Your task to perform on an android device: clear history in the chrome app Image 0: 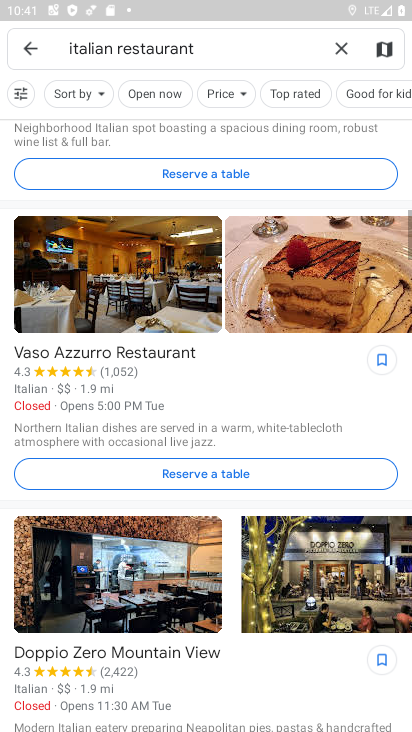
Step 0: press home button
Your task to perform on an android device: clear history in the chrome app Image 1: 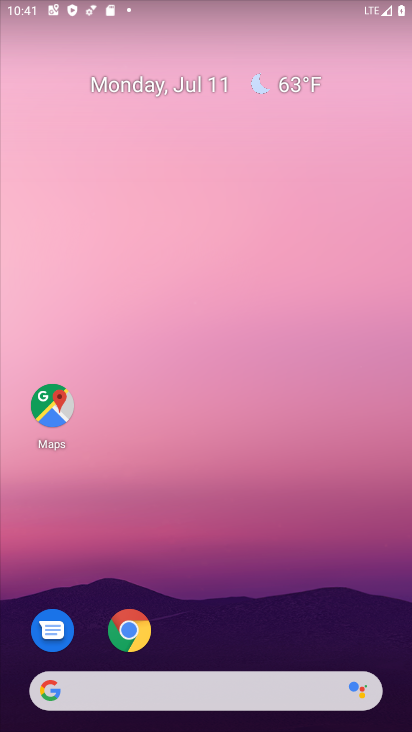
Step 1: click (129, 632)
Your task to perform on an android device: clear history in the chrome app Image 2: 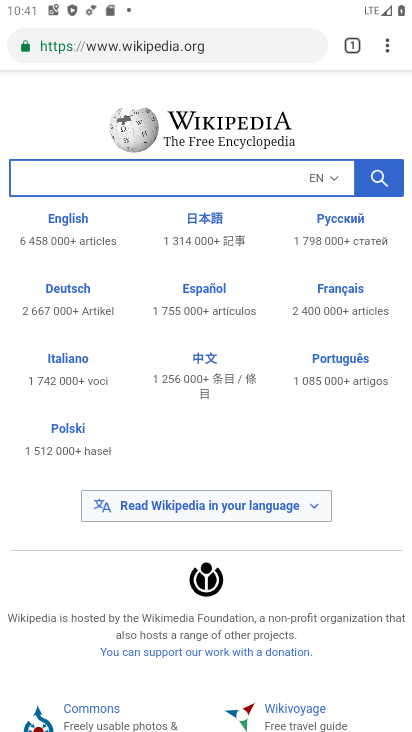
Step 2: click (387, 50)
Your task to perform on an android device: clear history in the chrome app Image 3: 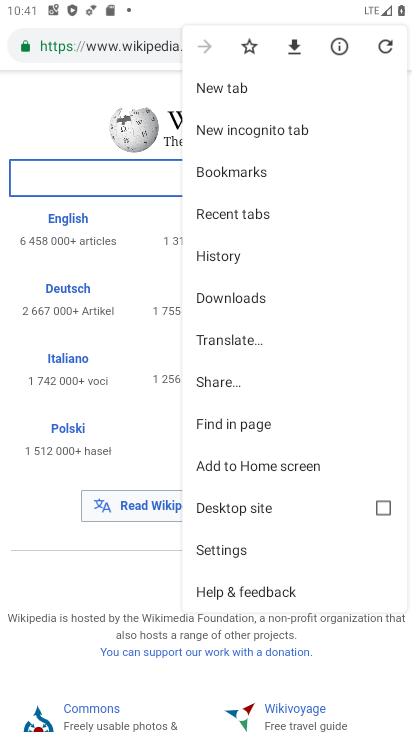
Step 3: click (211, 249)
Your task to perform on an android device: clear history in the chrome app Image 4: 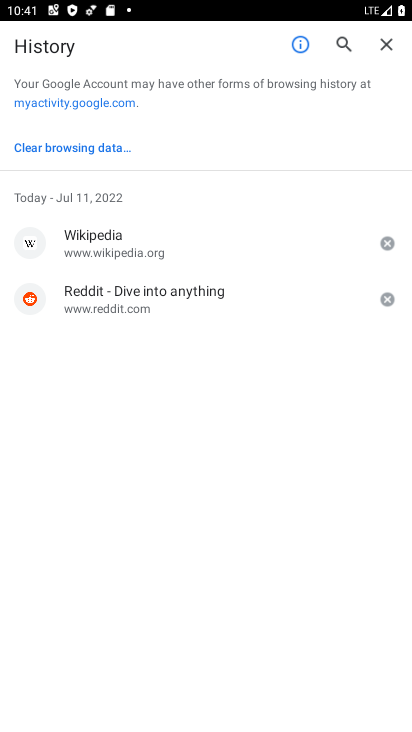
Step 4: click (67, 146)
Your task to perform on an android device: clear history in the chrome app Image 5: 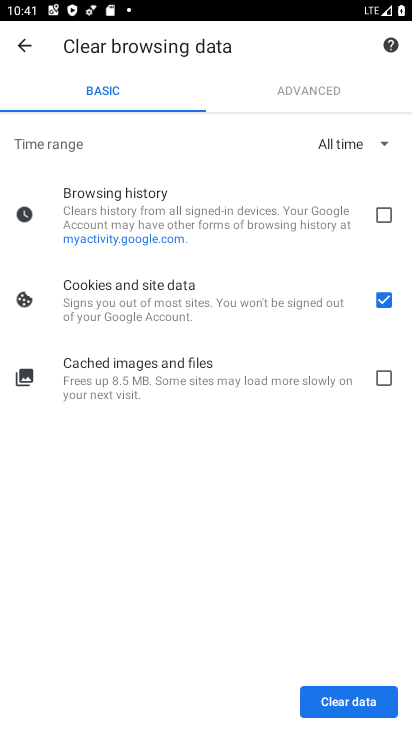
Step 5: click (380, 219)
Your task to perform on an android device: clear history in the chrome app Image 6: 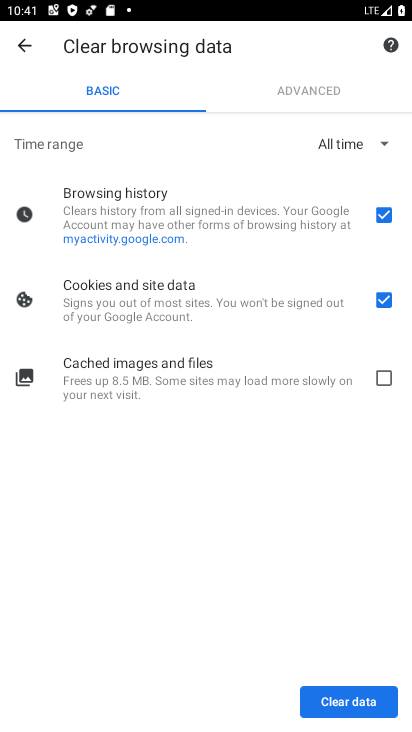
Step 6: click (383, 305)
Your task to perform on an android device: clear history in the chrome app Image 7: 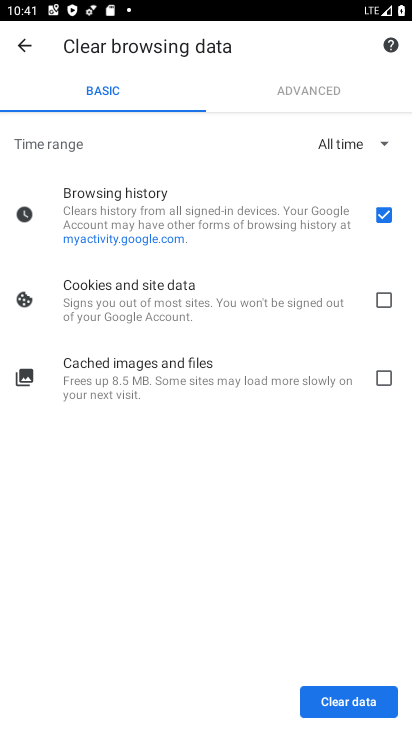
Step 7: click (353, 698)
Your task to perform on an android device: clear history in the chrome app Image 8: 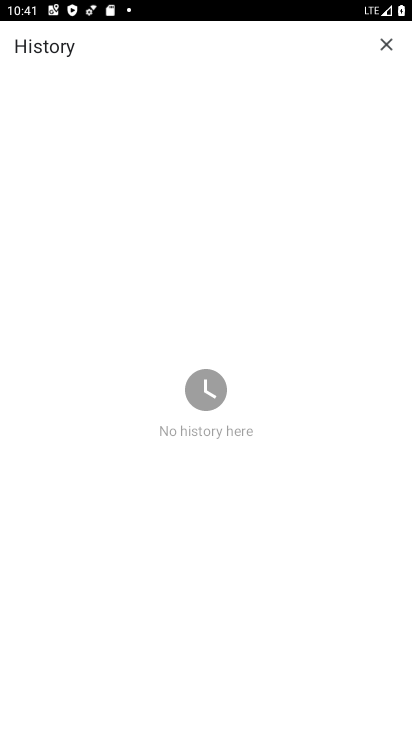
Step 8: task complete